Your task to perform on an android device: Open calendar and show me the second week of next month Image 0: 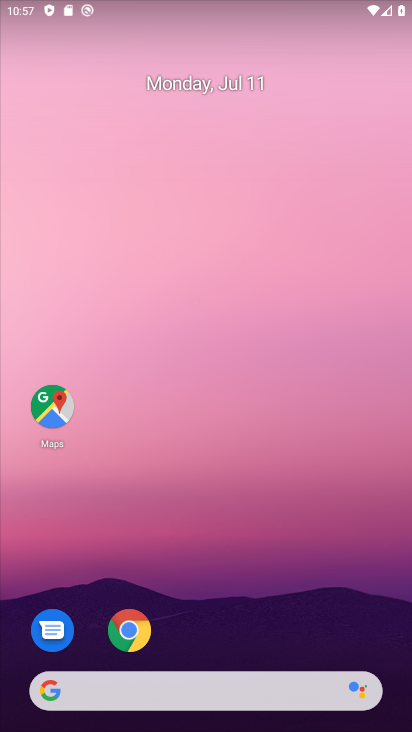
Step 0: drag from (270, 634) to (196, 180)
Your task to perform on an android device: Open calendar and show me the second week of next month Image 1: 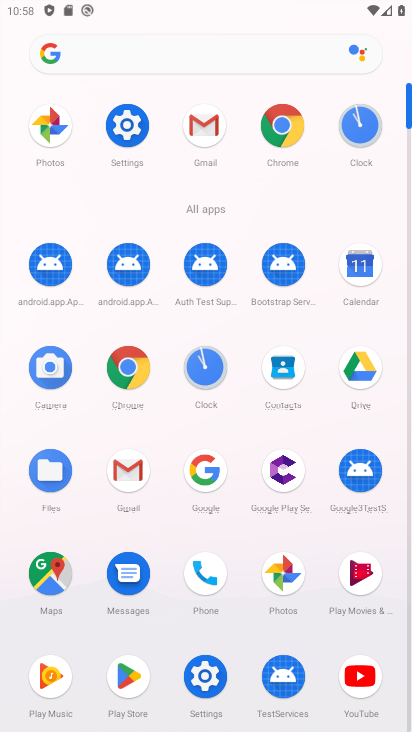
Step 1: click (366, 264)
Your task to perform on an android device: Open calendar and show me the second week of next month Image 2: 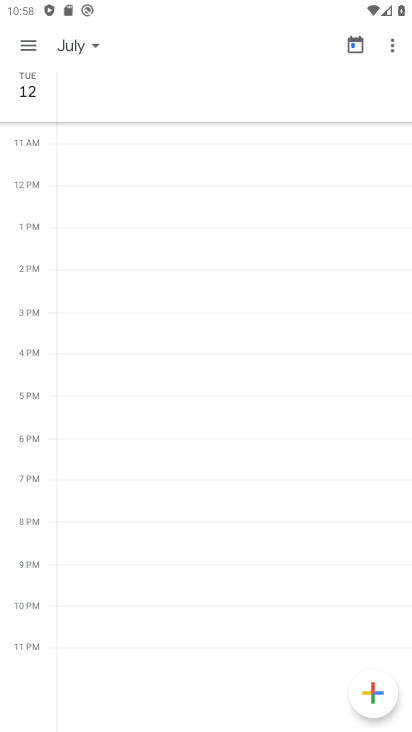
Step 2: click (33, 45)
Your task to perform on an android device: Open calendar and show me the second week of next month Image 3: 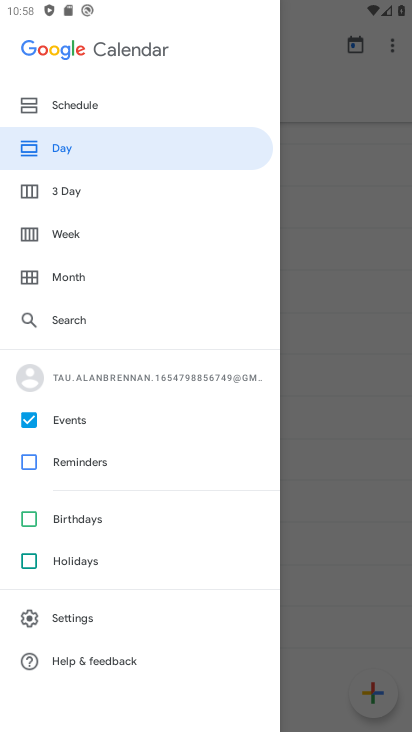
Step 3: click (94, 243)
Your task to perform on an android device: Open calendar and show me the second week of next month Image 4: 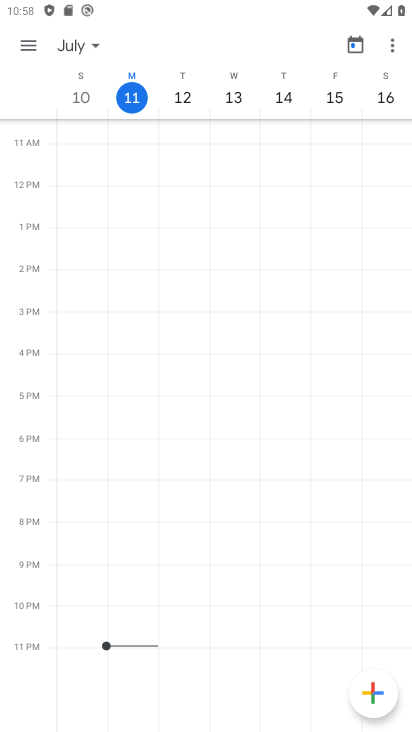
Step 4: click (97, 46)
Your task to perform on an android device: Open calendar and show me the second week of next month Image 5: 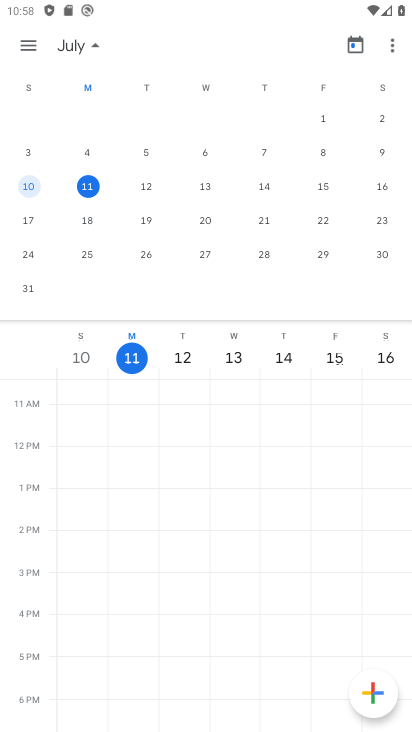
Step 5: drag from (196, 219) to (4, 208)
Your task to perform on an android device: Open calendar and show me the second week of next month Image 6: 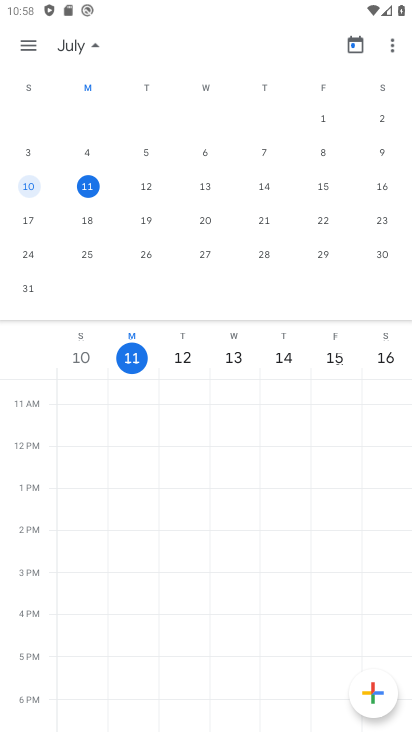
Step 6: drag from (383, 237) to (21, 255)
Your task to perform on an android device: Open calendar and show me the second week of next month Image 7: 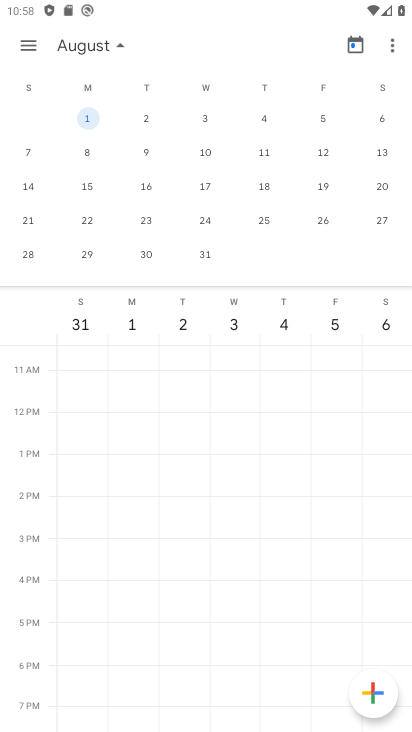
Step 7: click (201, 150)
Your task to perform on an android device: Open calendar and show me the second week of next month Image 8: 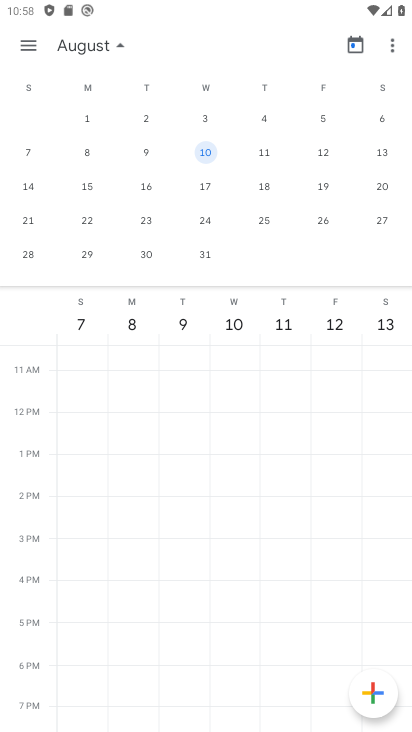
Step 8: task complete